Your task to perform on an android device: turn off wifi Image 0: 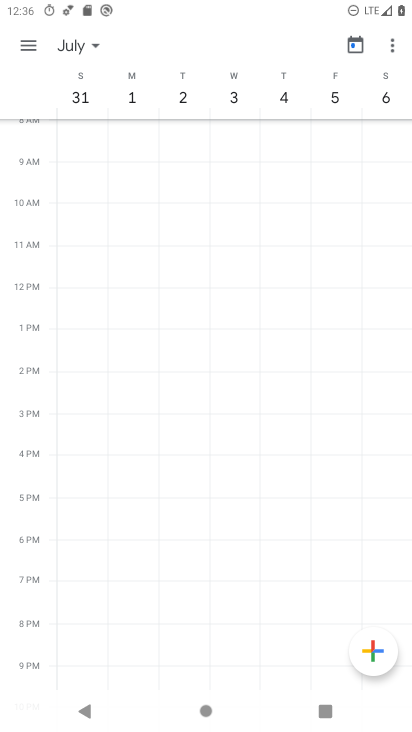
Step 0: press home button
Your task to perform on an android device: turn off wifi Image 1: 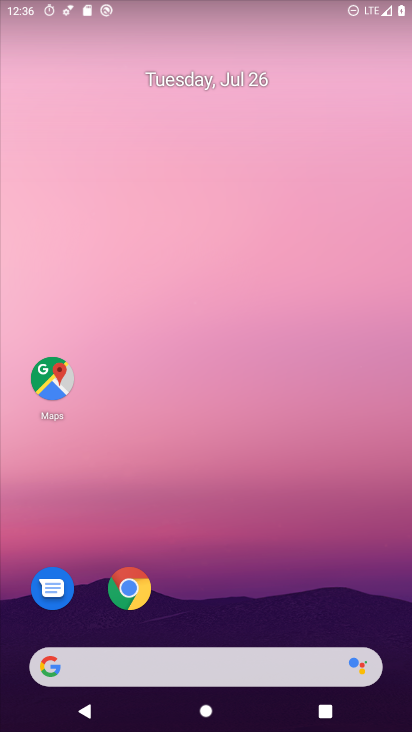
Step 1: drag from (256, 582) to (279, 199)
Your task to perform on an android device: turn off wifi Image 2: 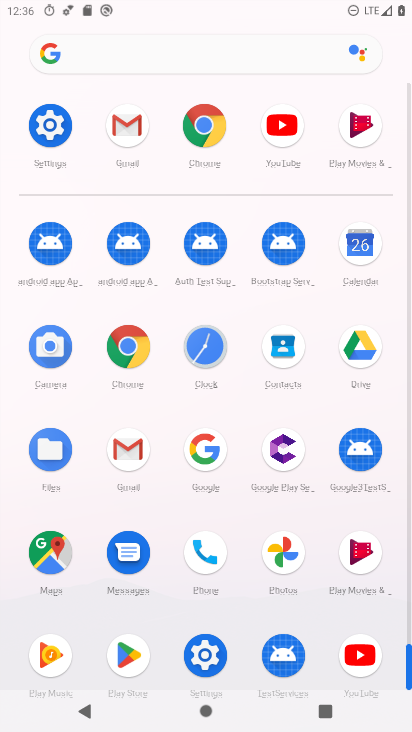
Step 2: click (63, 126)
Your task to perform on an android device: turn off wifi Image 3: 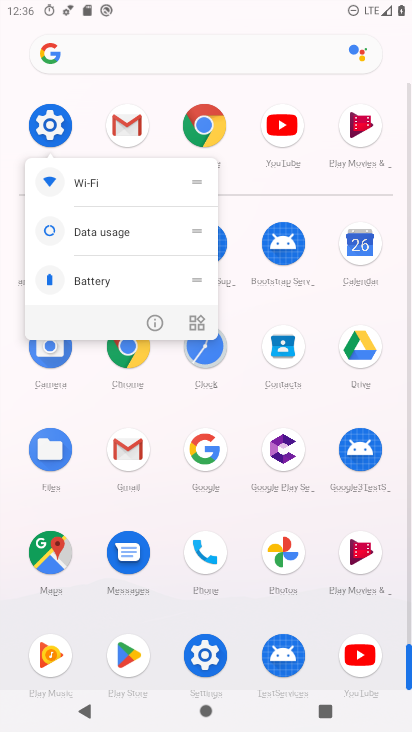
Step 3: click (204, 659)
Your task to perform on an android device: turn off wifi Image 4: 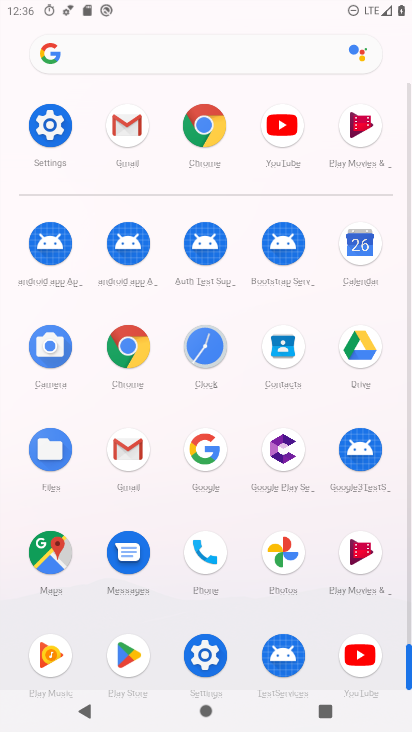
Step 4: click (207, 669)
Your task to perform on an android device: turn off wifi Image 5: 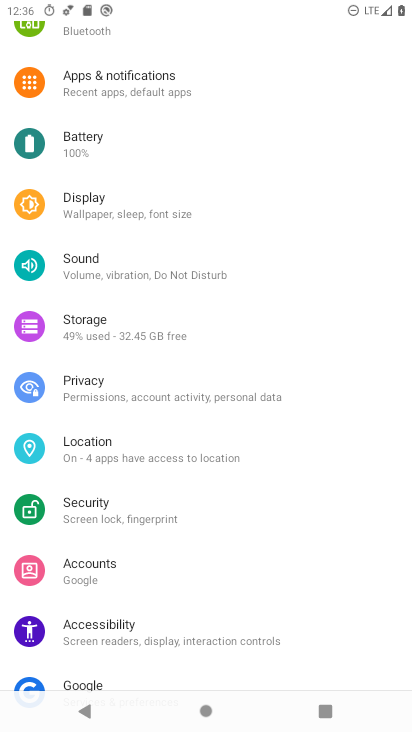
Step 5: drag from (299, 535) to (257, 644)
Your task to perform on an android device: turn off wifi Image 6: 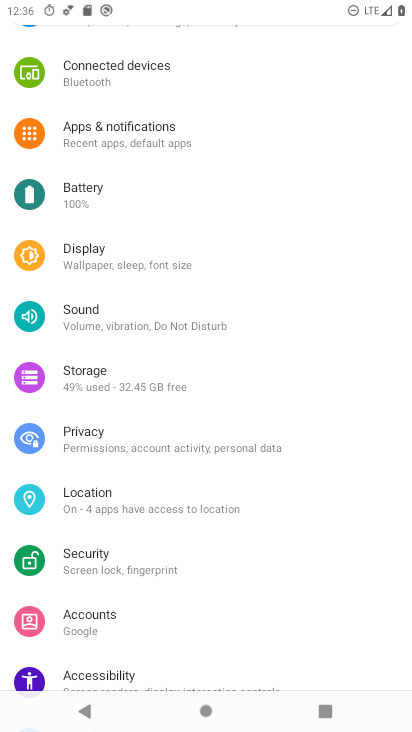
Step 6: drag from (182, 128) to (220, 567)
Your task to perform on an android device: turn off wifi Image 7: 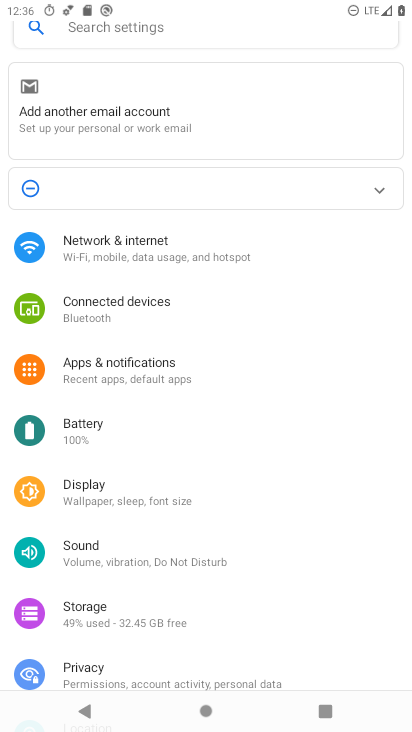
Step 7: click (175, 287)
Your task to perform on an android device: turn off wifi Image 8: 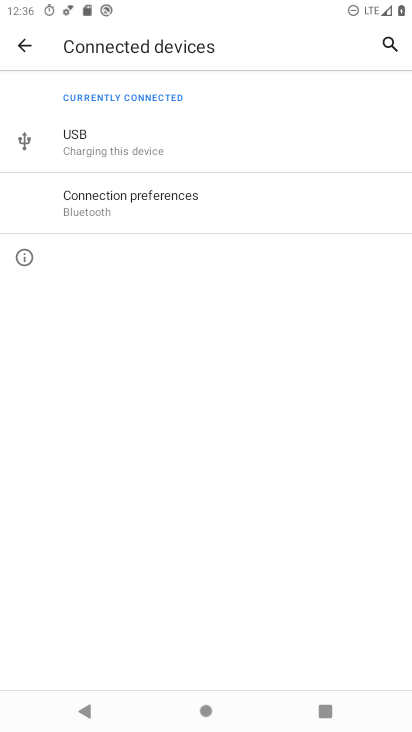
Step 8: press back button
Your task to perform on an android device: turn off wifi Image 9: 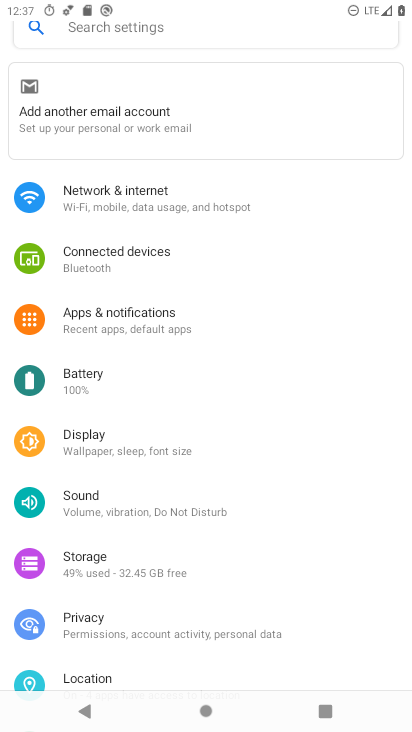
Step 9: click (193, 210)
Your task to perform on an android device: turn off wifi Image 10: 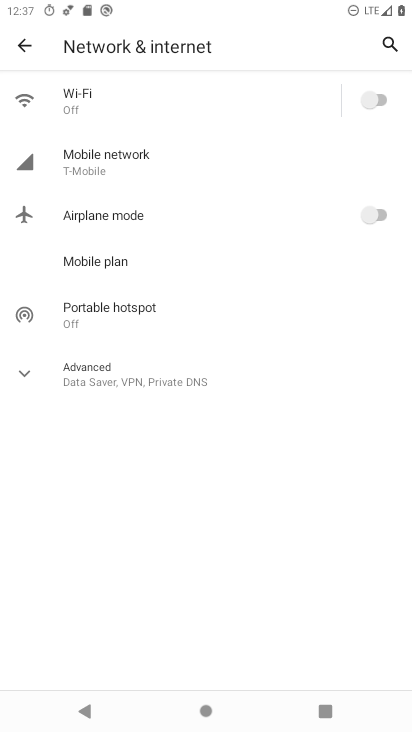
Step 10: task complete